Your task to perform on an android device: change the upload size in google photos Image 0: 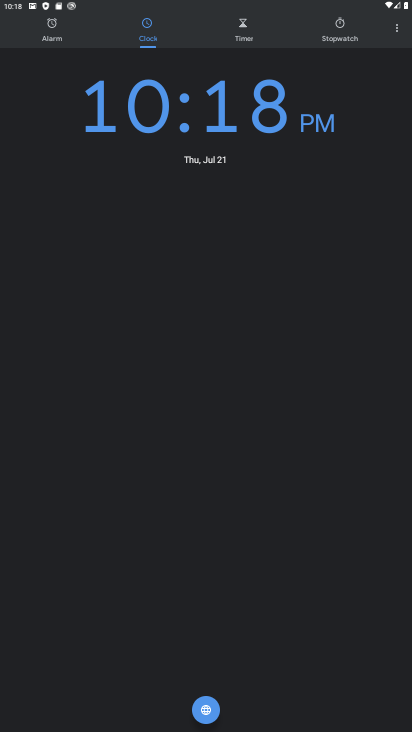
Step 0: press back button
Your task to perform on an android device: change the upload size in google photos Image 1: 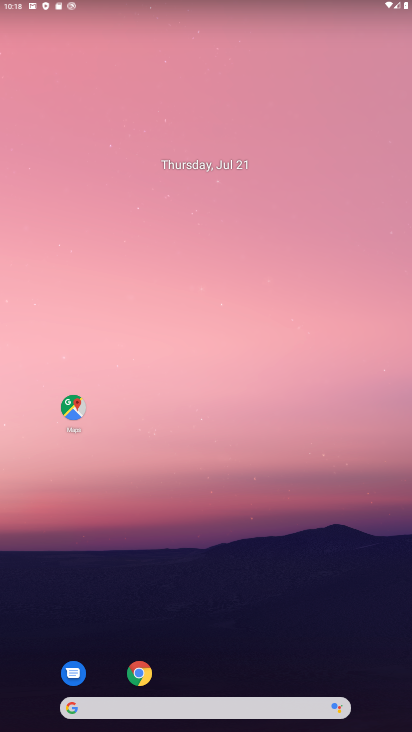
Step 1: drag from (224, 559) to (311, 6)
Your task to perform on an android device: change the upload size in google photos Image 2: 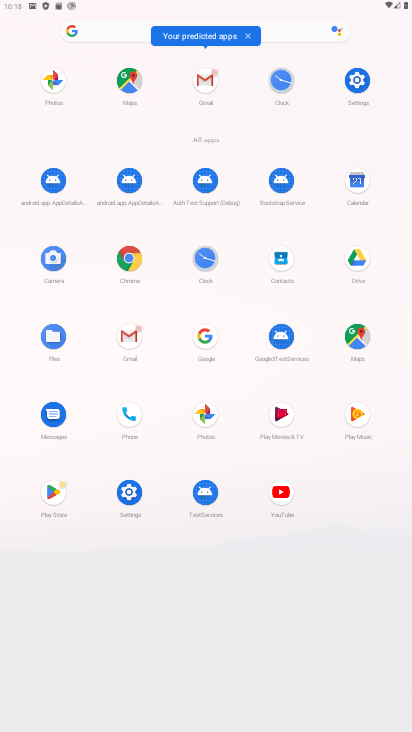
Step 2: click (210, 419)
Your task to perform on an android device: change the upload size in google photos Image 3: 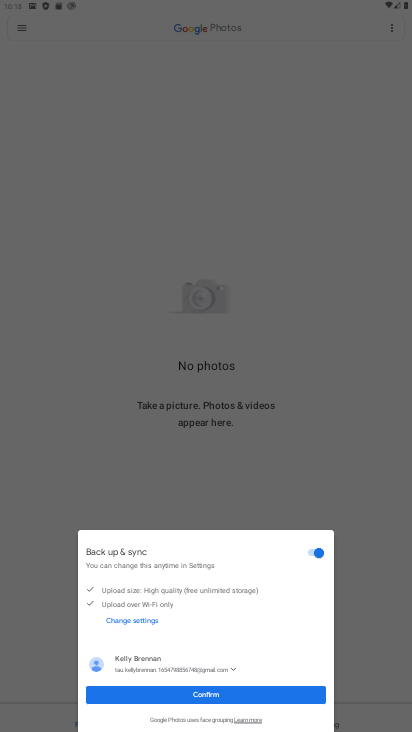
Step 3: click (209, 692)
Your task to perform on an android device: change the upload size in google photos Image 4: 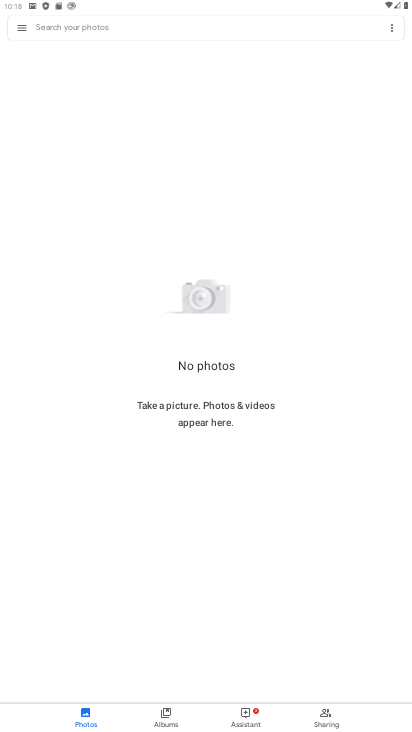
Step 4: click (12, 21)
Your task to perform on an android device: change the upload size in google photos Image 5: 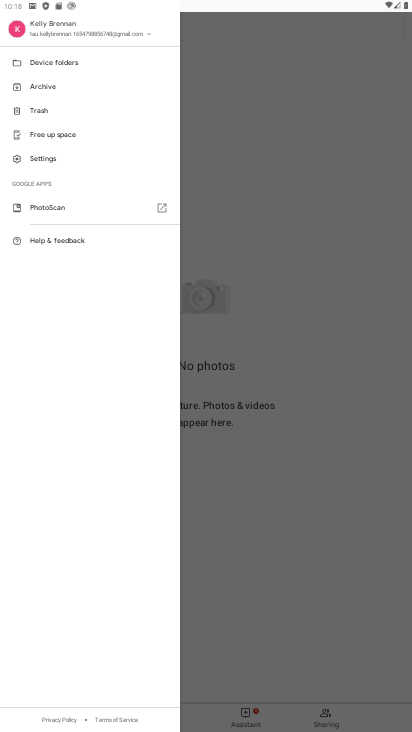
Step 5: click (35, 159)
Your task to perform on an android device: change the upload size in google photos Image 6: 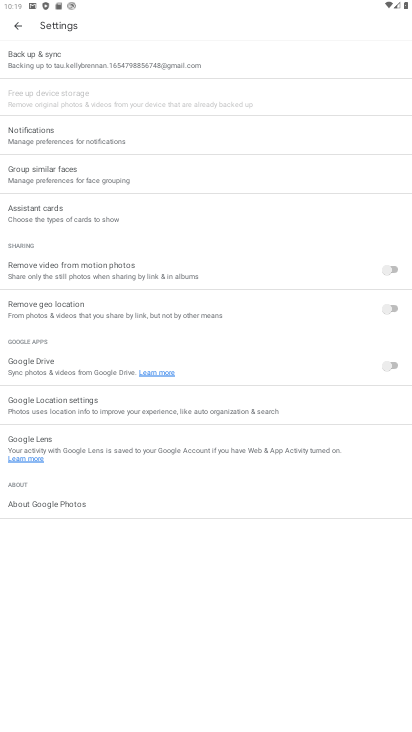
Step 6: click (76, 59)
Your task to perform on an android device: change the upload size in google photos Image 7: 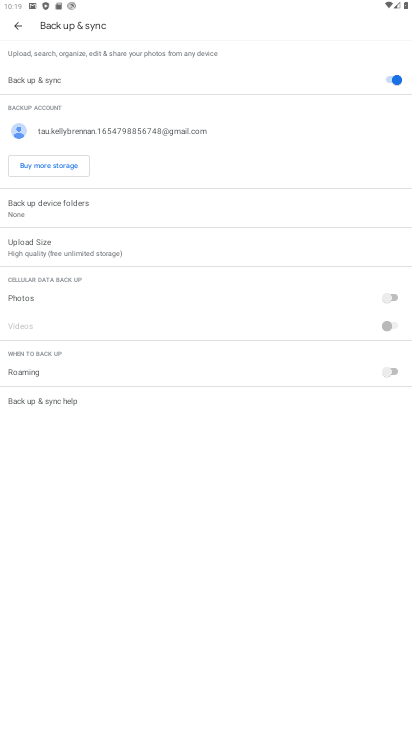
Step 7: click (60, 261)
Your task to perform on an android device: change the upload size in google photos Image 8: 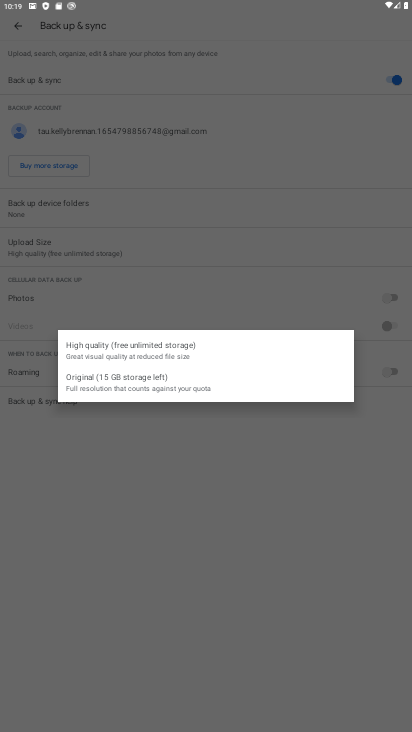
Step 8: click (125, 388)
Your task to perform on an android device: change the upload size in google photos Image 9: 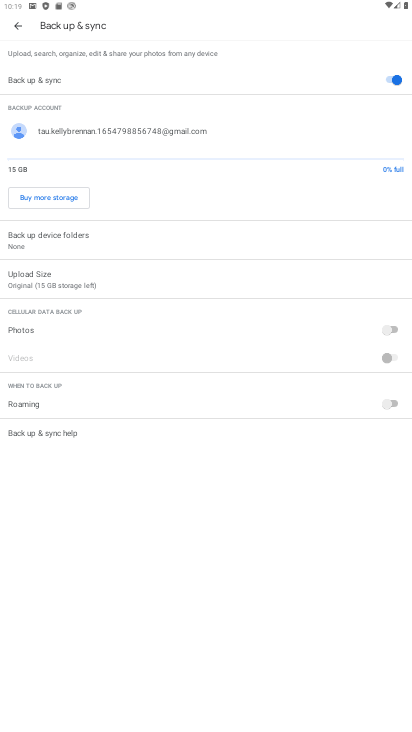
Step 9: task complete